Your task to perform on an android device: What's the weather going to be this weekend? Image 0: 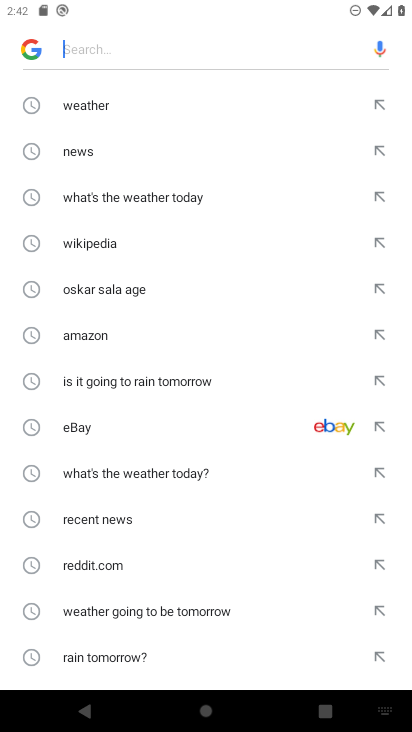
Step 0: press home button
Your task to perform on an android device: What's the weather going to be this weekend? Image 1: 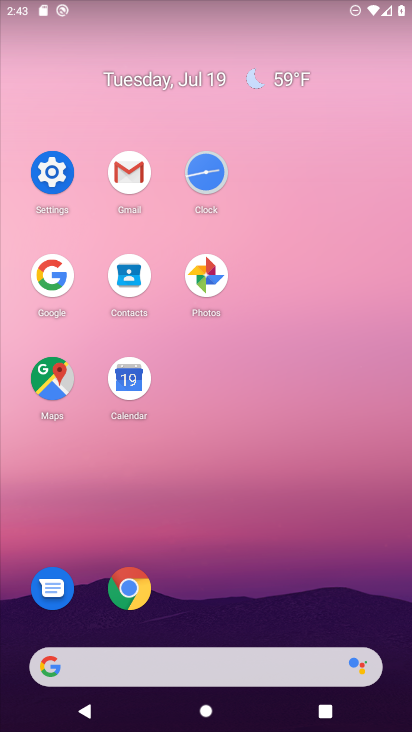
Step 1: click (45, 272)
Your task to perform on an android device: What's the weather going to be this weekend? Image 2: 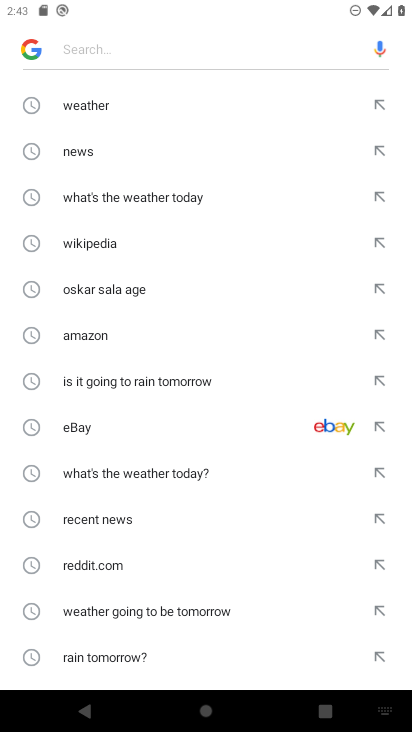
Step 2: click (104, 104)
Your task to perform on an android device: What's the weather going to be this weekend? Image 3: 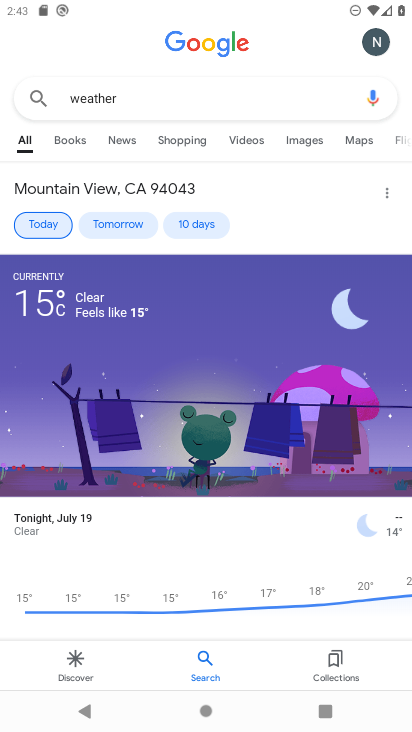
Step 3: click (204, 229)
Your task to perform on an android device: What's the weather going to be this weekend? Image 4: 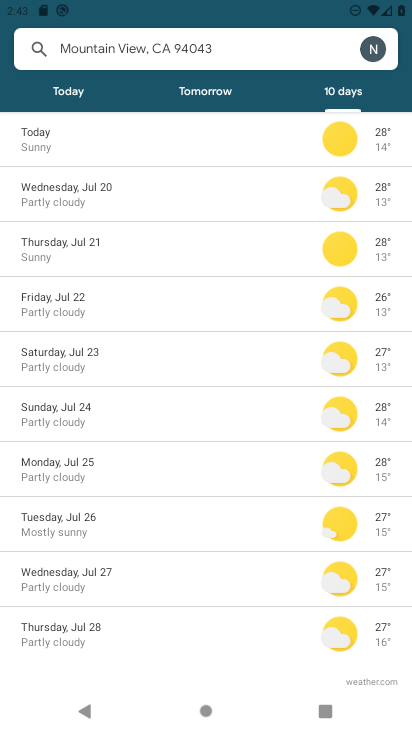
Step 4: click (155, 371)
Your task to perform on an android device: What's the weather going to be this weekend? Image 5: 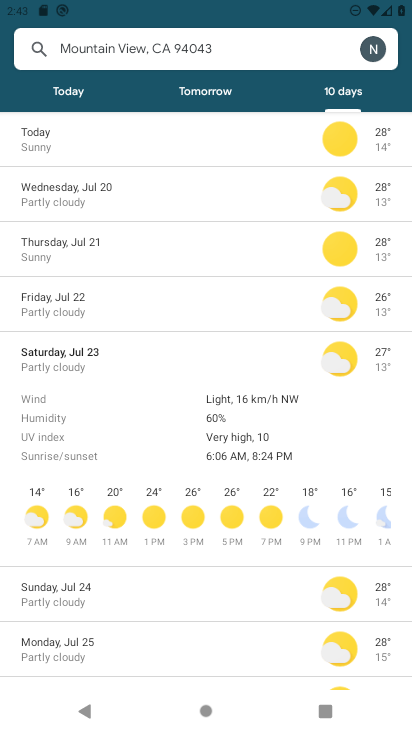
Step 5: task complete